Your task to perform on an android device: set the stopwatch Image 0: 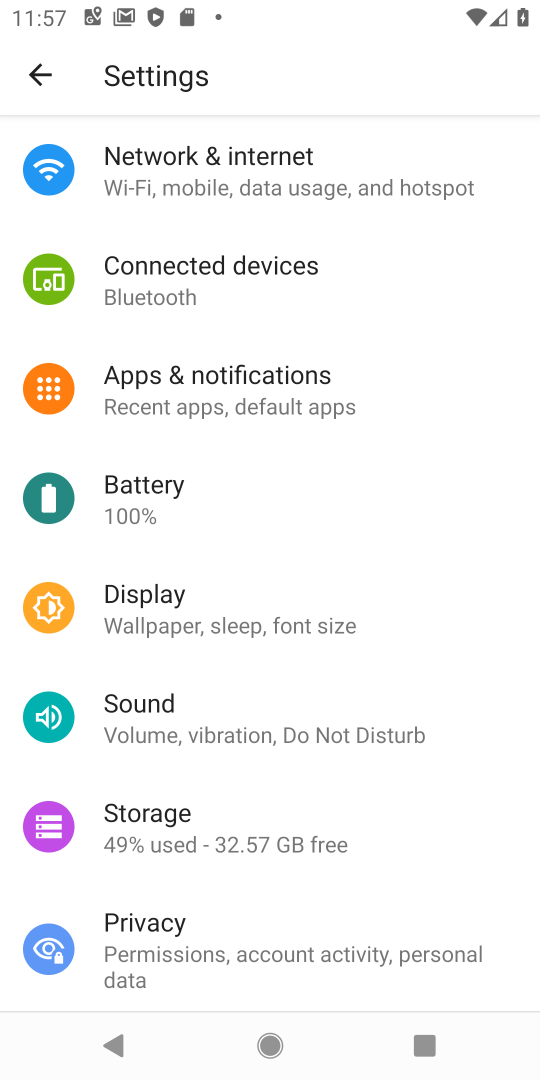
Step 0: press home button
Your task to perform on an android device: set the stopwatch Image 1: 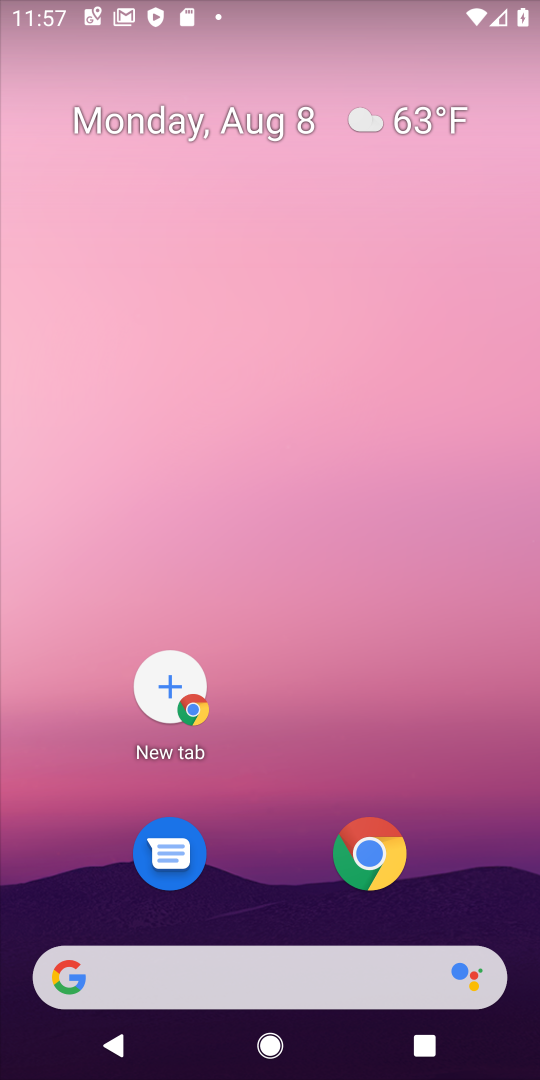
Step 1: drag from (292, 873) to (305, 102)
Your task to perform on an android device: set the stopwatch Image 2: 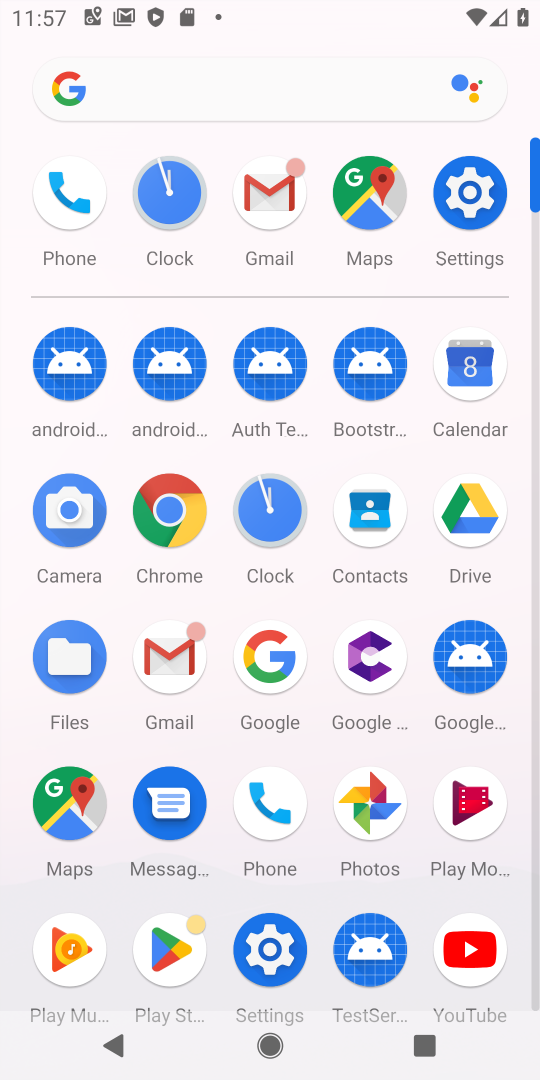
Step 2: click (180, 181)
Your task to perform on an android device: set the stopwatch Image 3: 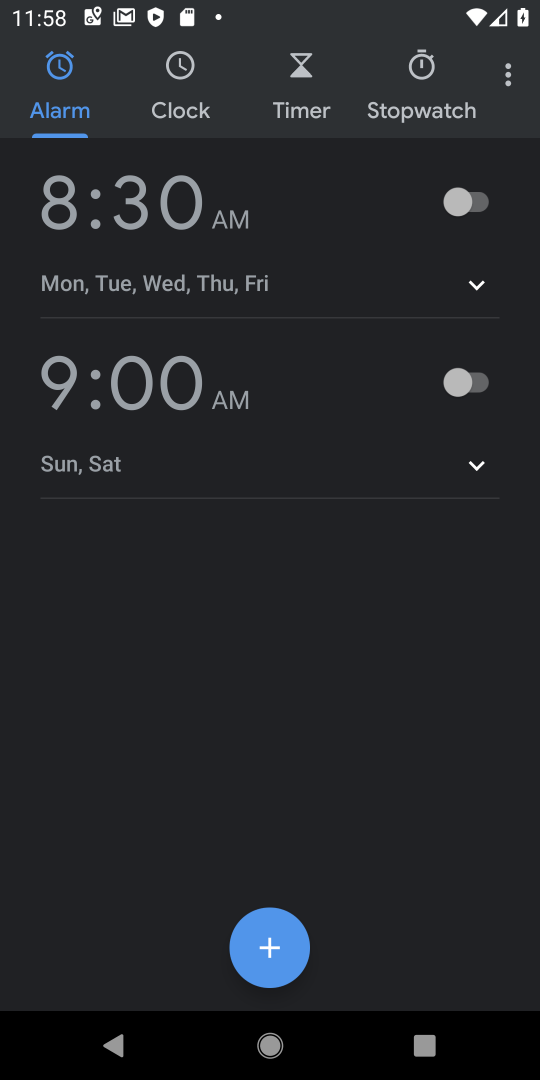
Step 3: click (406, 72)
Your task to perform on an android device: set the stopwatch Image 4: 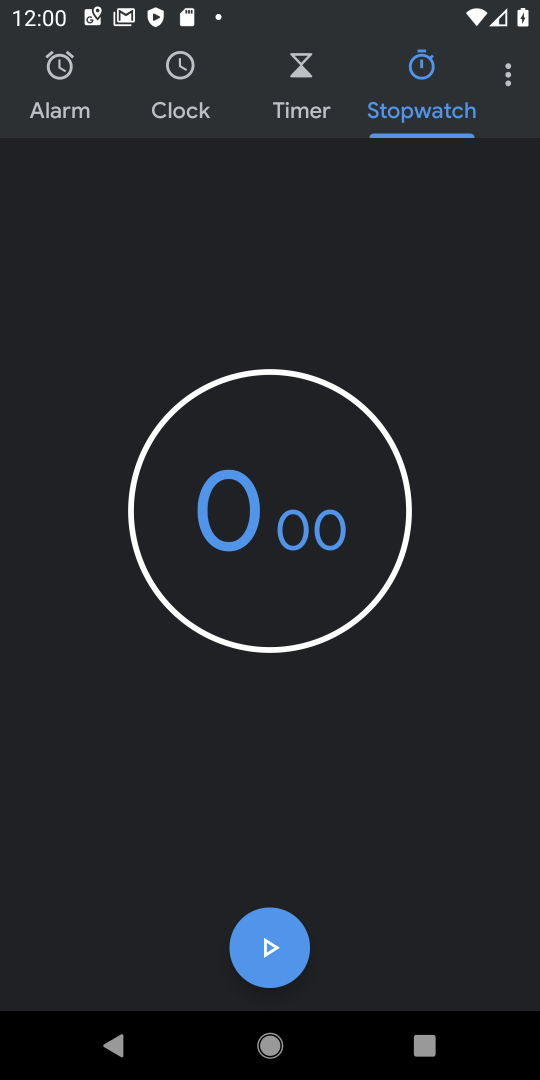
Step 4: task complete